Your task to perform on an android device: turn on data saver in the chrome app Image 0: 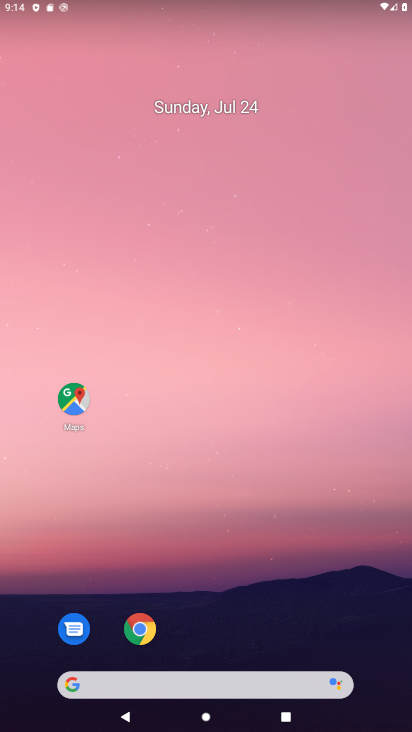
Step 0: drag from (220, 648) to (347, 146)
Your task to perform on an android device: turn on data saver in the chrome app Image 1: 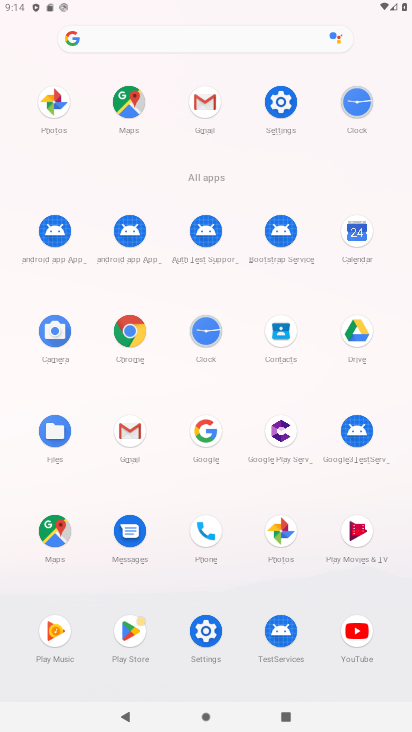
Step 1: click (133, 357)
Your task to perform on an android device: turn on data saver in the chrome app Image 2: 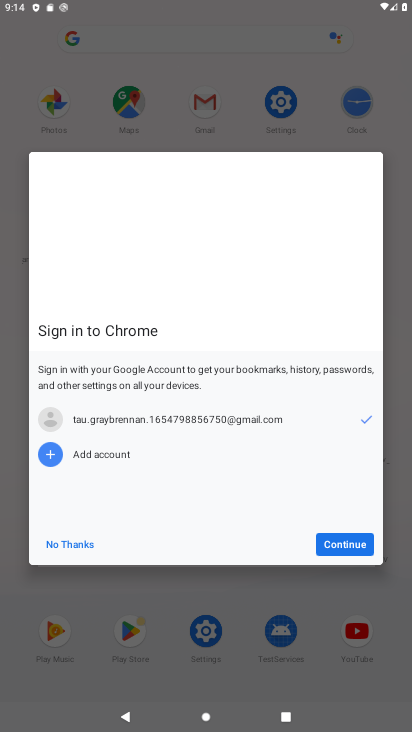
Step 2: click (331, 541)
Your task to perform on an android device: turn on data saver in the chrome app Image 3: 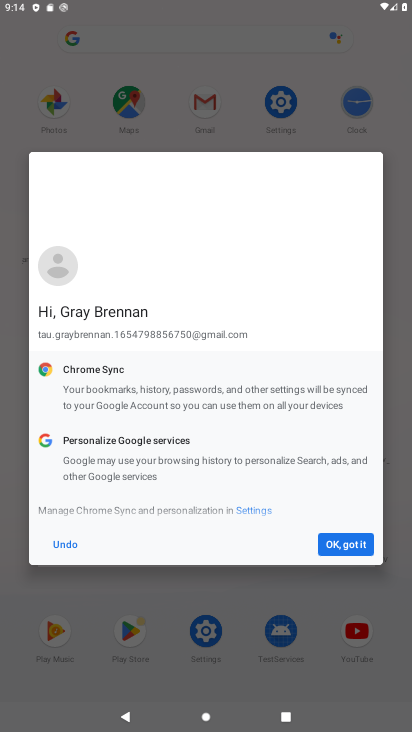
Step 3: click (331, 541)
Your task to perform on an android device: turn on data saver in the chrome app Image 4: 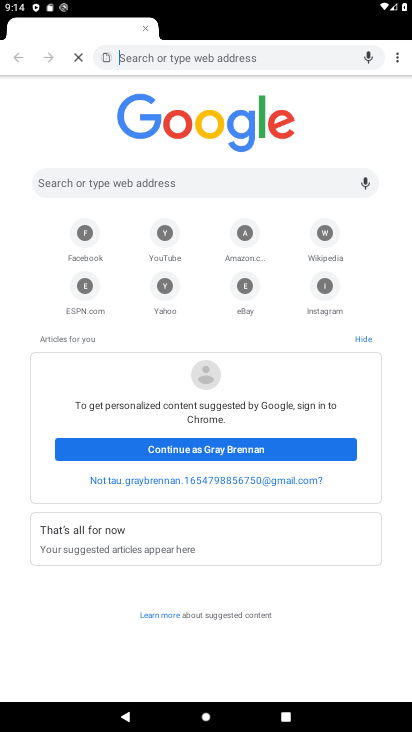
Step 4: click (398, 56)
Your task to perform on an android device: turn on data saver in the chrome app Image 5: 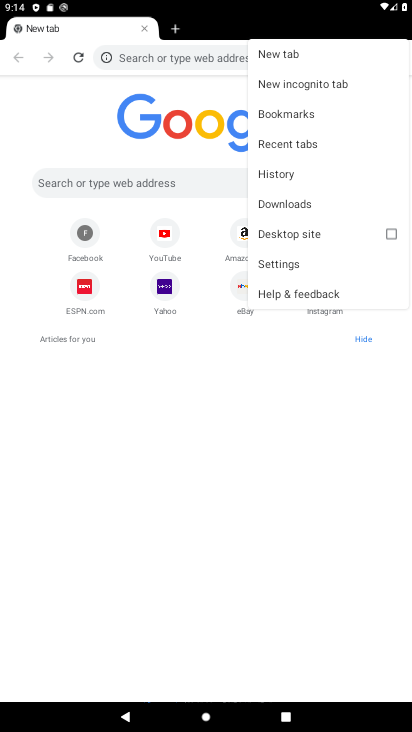
Step 5: click (297, 265)
Your task to perform on an android device: turn on data saver in the chrome app Image 6: 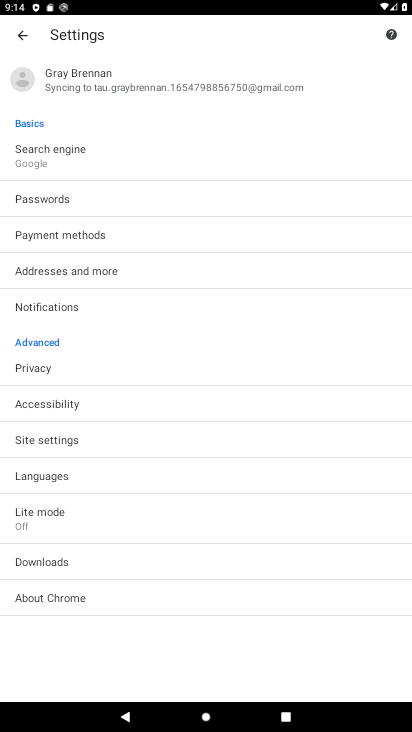
Step 6: click (97, 507)
Your task to perform on an android device: turn on data saver in the chrome app Image 7: 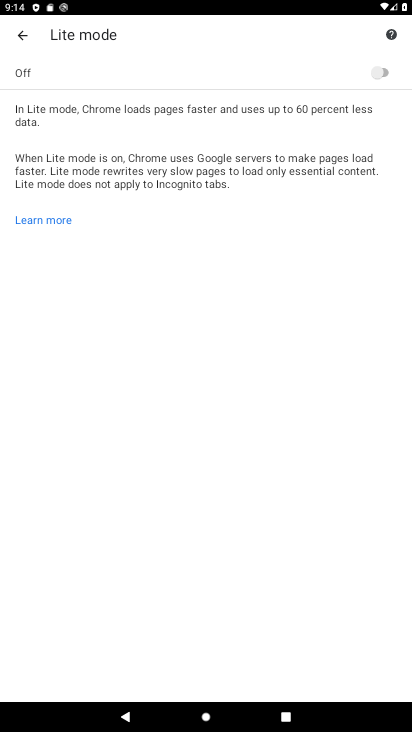
Step 7: click (371, 83)
Your task to perform on an android device: turn on data saver in the chrome app Image 8: 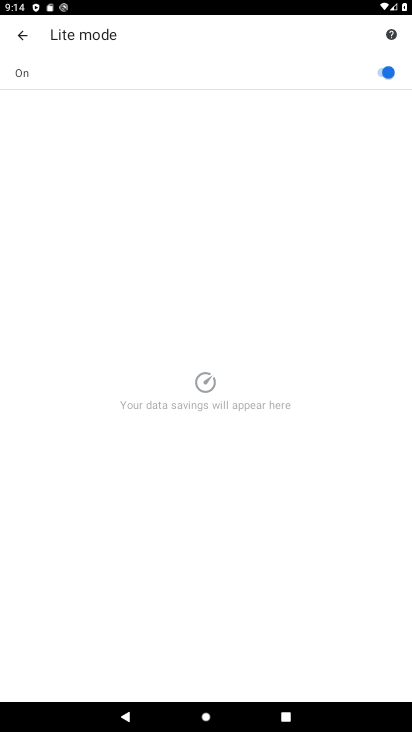
Step 8: task complete